Your task to perform on an android device: Search for pizza restaurants on Maps Image 0: 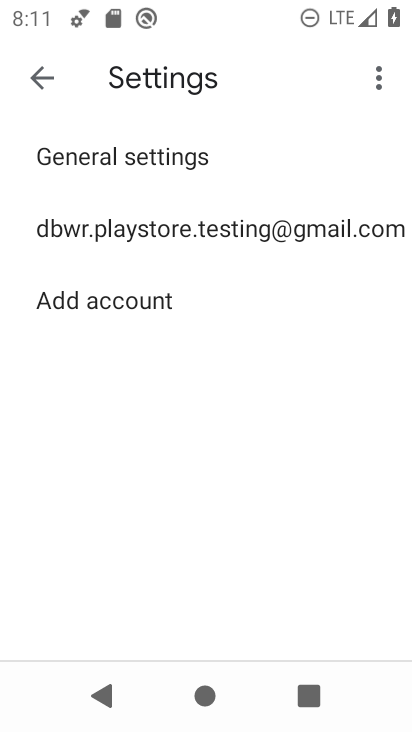
Step 0: press home button
Your task to perform on an android device: Search for pizza restaurants on Maps Image 1: 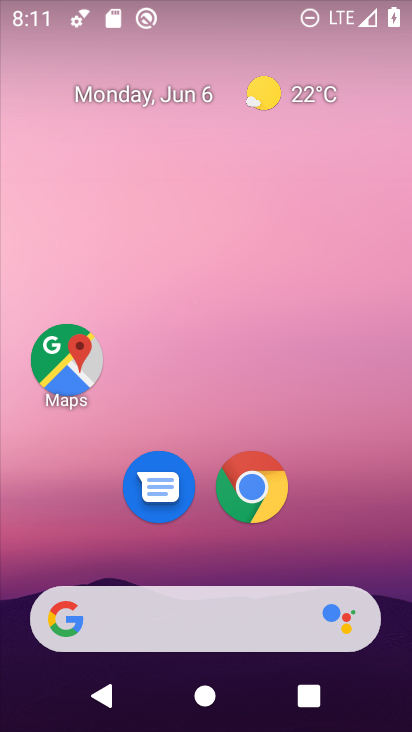
Step 1: drag from (384, 628) to (288, 45)
Your task to perform on an android device: Search for pizza restaurants on Maps Image 2: 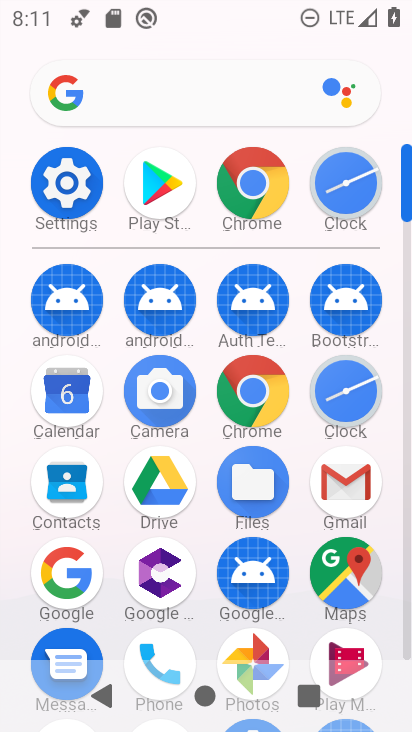
Step 2: click (357, 576)
Your task to perform on an android device: Search for pizza restaurants on Maps Image 3: 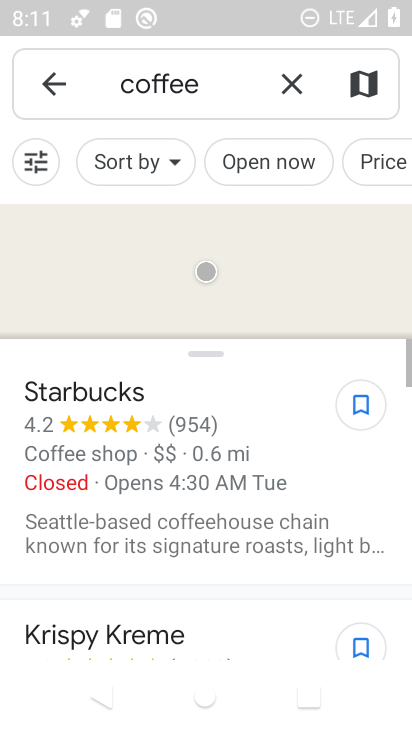
Step 3: click (285, 76)
Your task to perform on an android device: Search for pizza restaurants on Maps Image 4: 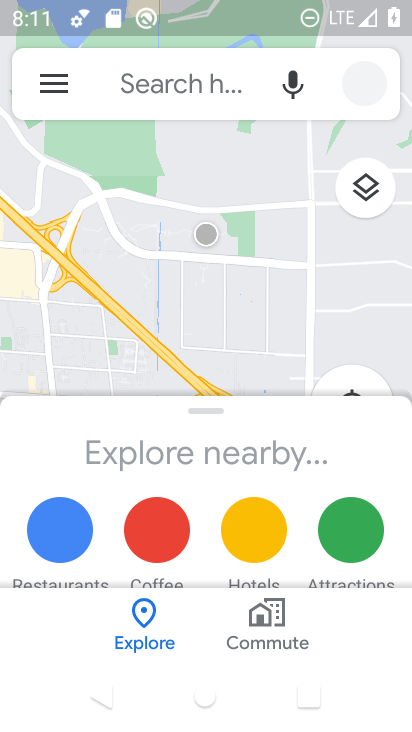
Step 4: click (136, 78)
Your task to perform on an android device: Search for pizza restaurants on Maps Image 5: 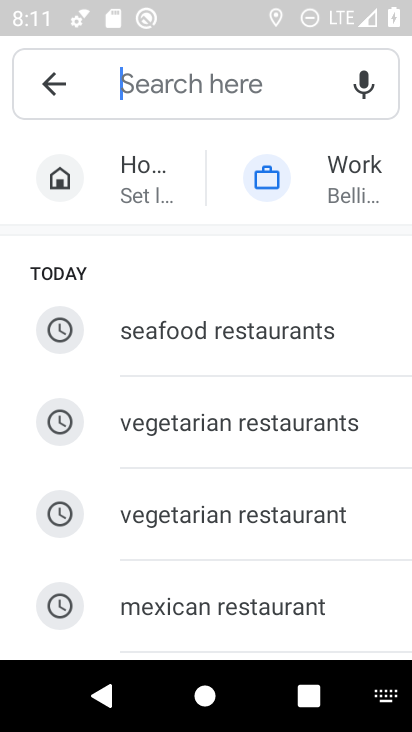
Step 5: drag from (152, 602) to (182, 218)
Your task to perform on an android device: Search for pizza restaurants on Maps Image 6: 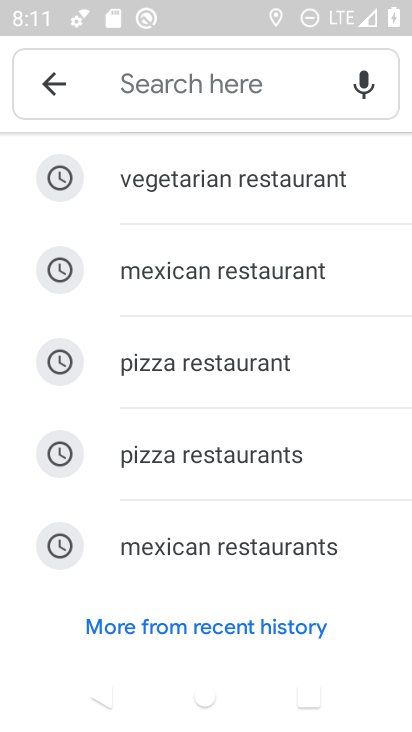
Step 6: click (223, 477)
Your task to perform on an android device: Search for pizza restaurants on Maps Image 7: 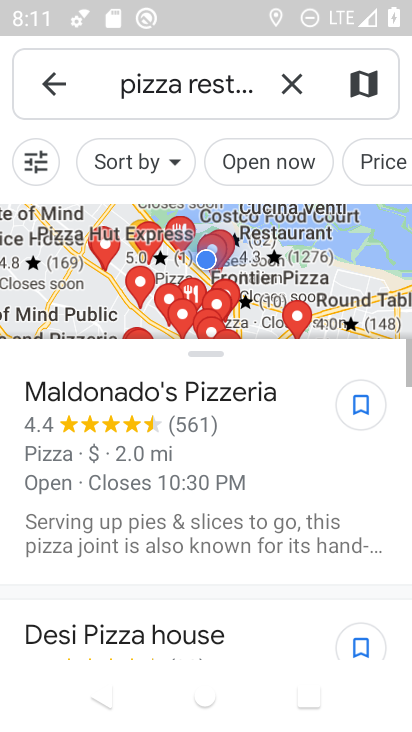
Step 7: task complete